Your task to perform on an android device: see tabs open on other devices in the chrome app Image 0: 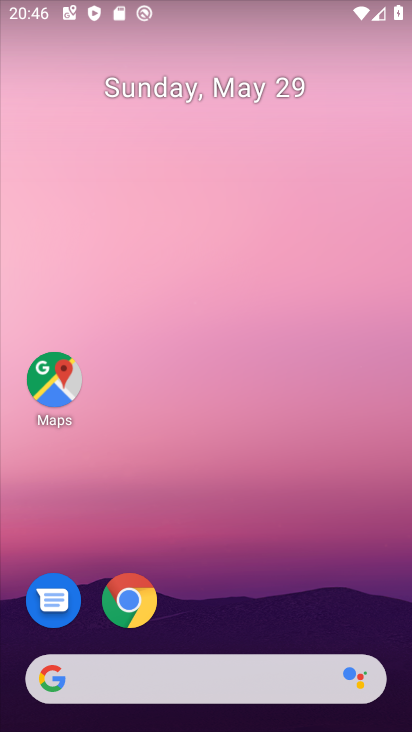
Step 0: drag from (313, 593) to (313, 191)
Your task to perform on an android device: see tabs open on other devices in the chrome app Image 1: 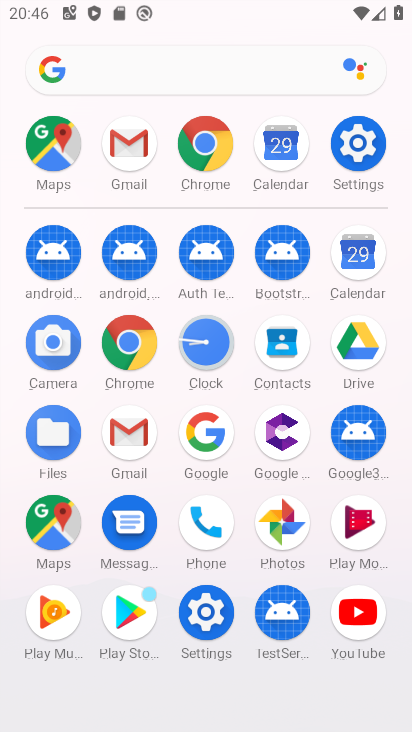
Step 1: click (136, 346)
Your task to perform on an android device: see tabs open on other devices in the chrome app Image 2: 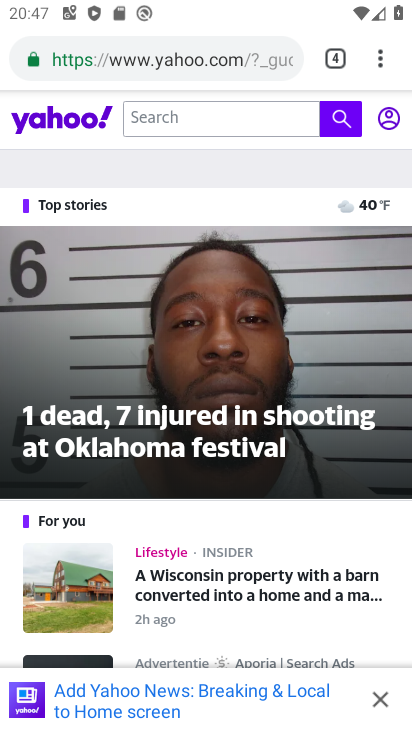
Step 2: click (331, 56)
Your task to perform on an android device: see tabs open on other devices in the chrome app Image 3: 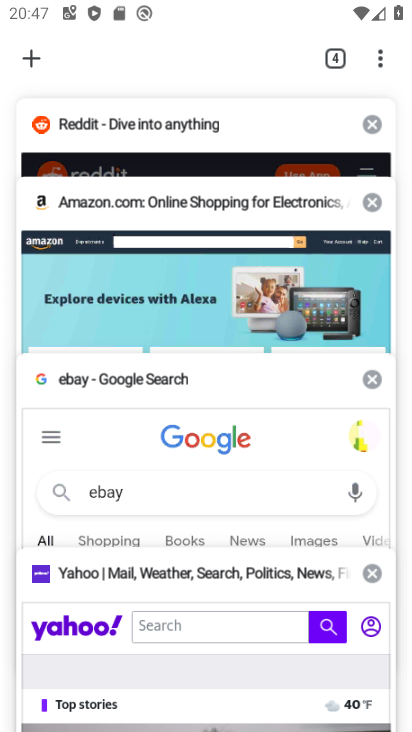
Step 3: task complete